Your task to perform on an android device: change alarm snooze length Image 0: 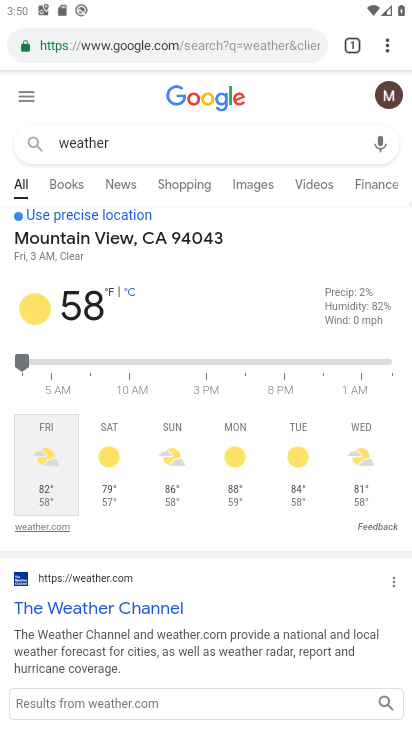
Step 0: press home button
Your task to perform on an android device: change alarm snooze length Image 1: 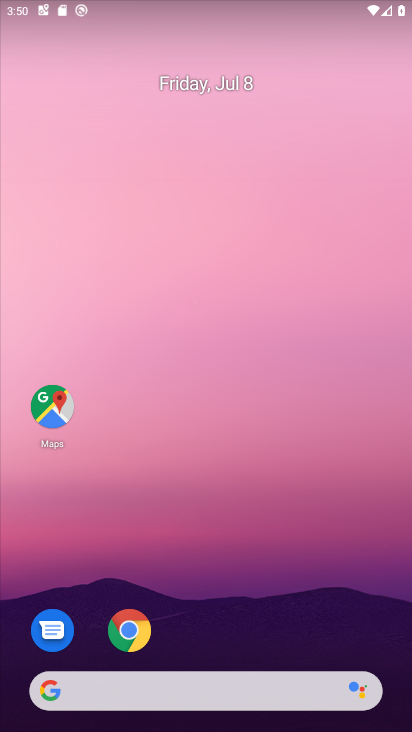
Step 1: drag from (275, 596) to (258, 60)
Your task to perform on an android device: change alarm snooze length Image 2: 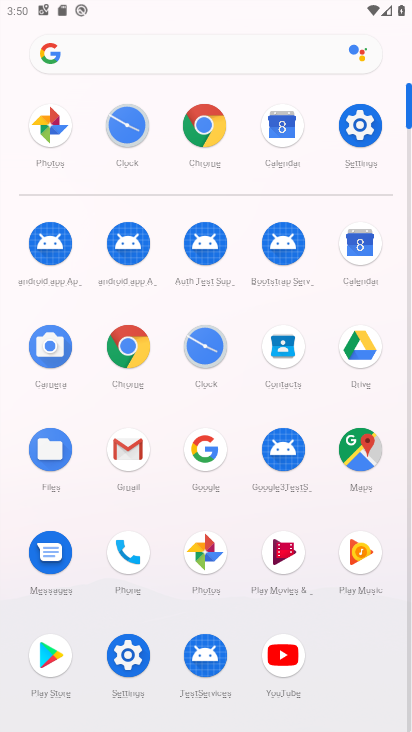
Step 2: click (210, 349)
Your task to perform on an android device: change alarm snooze length Image 3: 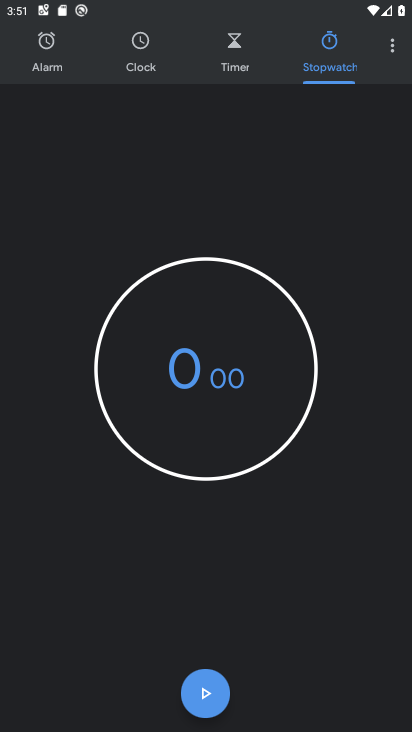
Step 3: click (396, 48)
Your task to perform on an android device: change alarm snooze length Image 4: 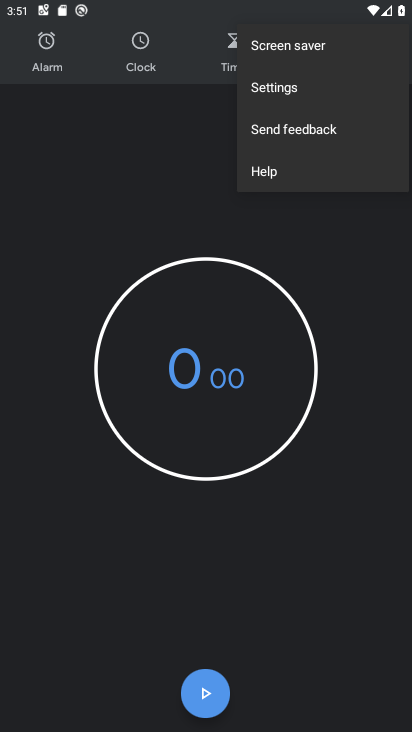
Step 4: click (297, 87)
Your task to perform on an android device: change alarm snooze length Image 5: 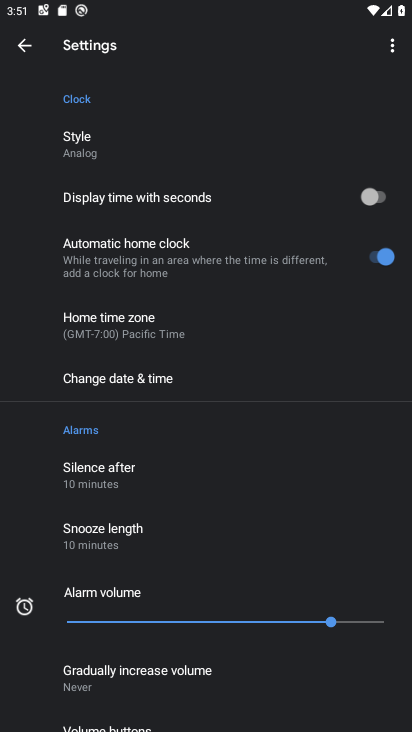
Step 5: click (108, 538)
Your task to perform on an android device: change alarm snooze length Image 6: 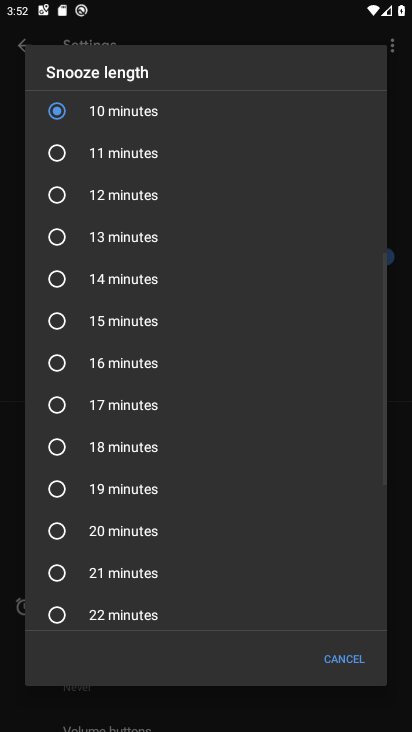
Step 6: click (108, 152)
Your task to perform on an android device: change alarm snooze length Image 7: 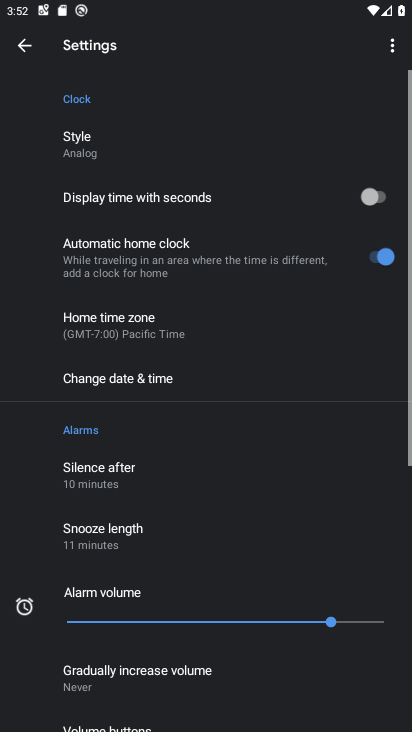
Step 7: task complete